Your task to perform on an android device: delete browsing data in the chrome app Image 0: 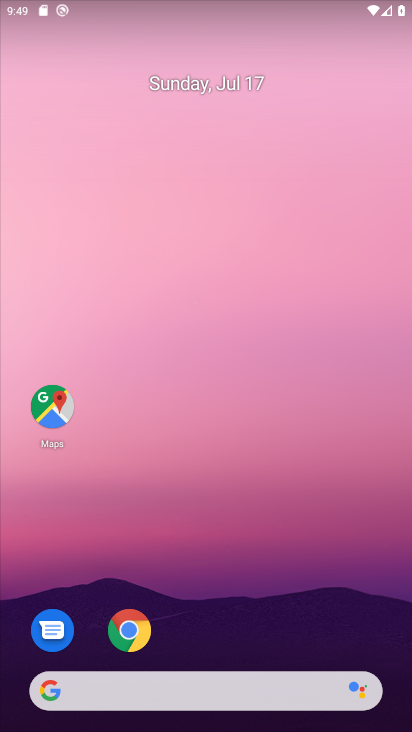
Step 0: click (238, 61)
Your task to perform on an android device: delete browsing data in the chrome app Image 1: 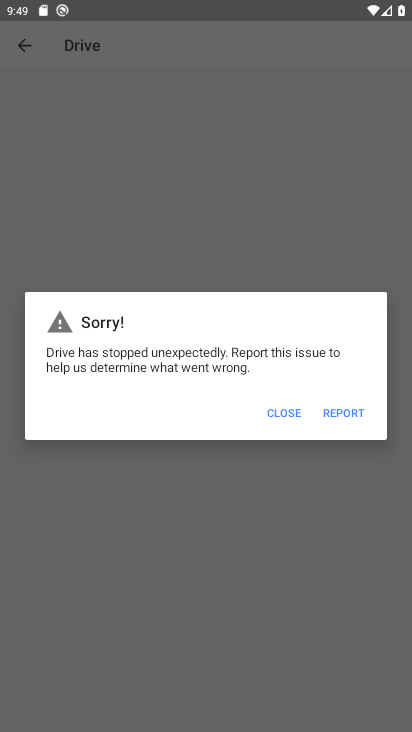
Step 1: press home button
Your task to perform on an android device: delete browsing data in the chrome app Image 2: 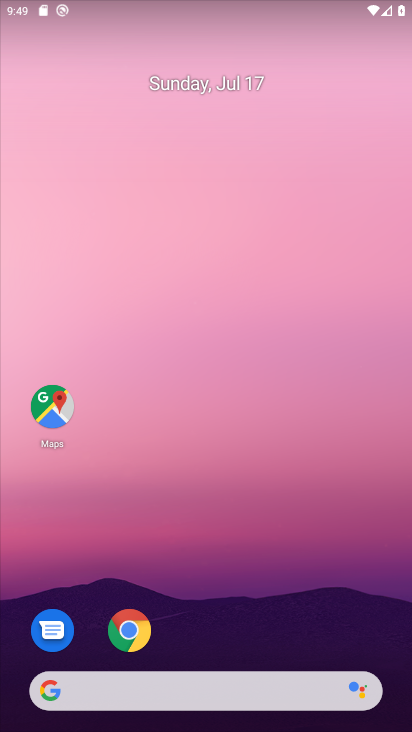
Step 2: click (121, 639)
Your task to perform on an android device: delete browsing data in the chrome app Image 3: 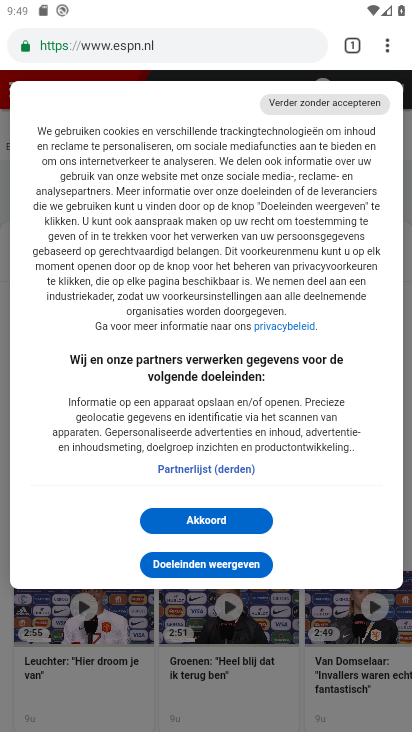
Step 3: click (385, 46)
Your task to perform on an android device: delete browsing data in the chrome app Image 4: 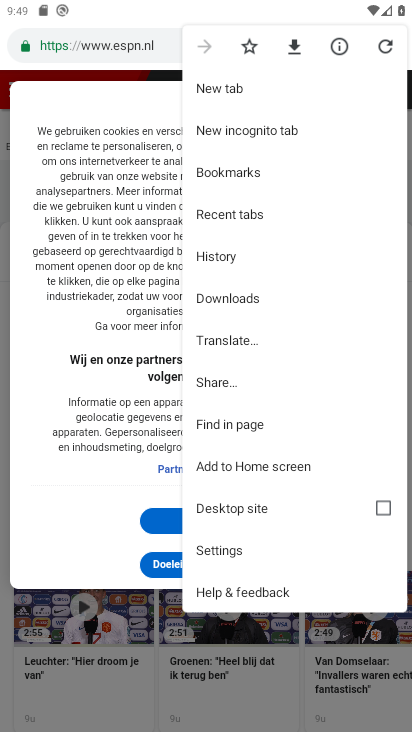
Step 4: click (248, 257)
Your task to perform on an android device: delete browsing data in the chrome app Image 5: 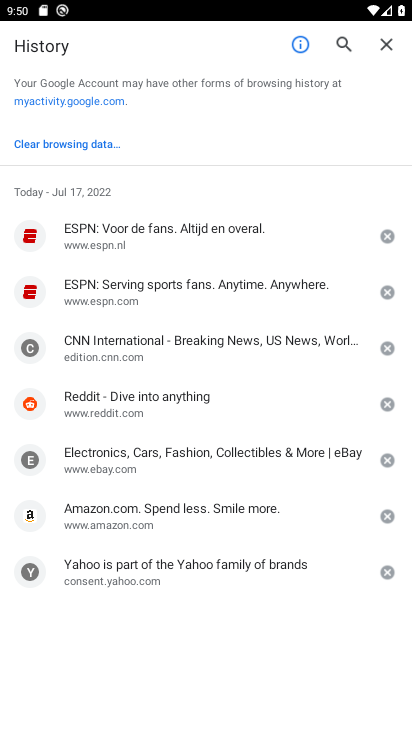
Step 5: click (83, 139)
Your task to perform on an android device: delete browsing data in the chrome app Image 6: 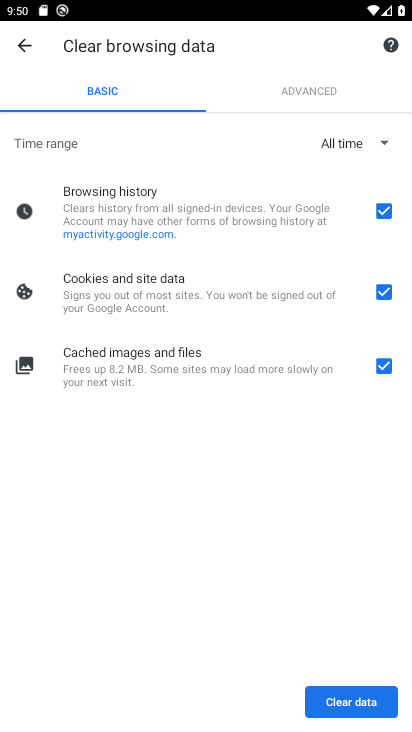
Step 6: click (371, 701)
Your task to perform on an android device: delete browsing data in the chrome app Image 7: 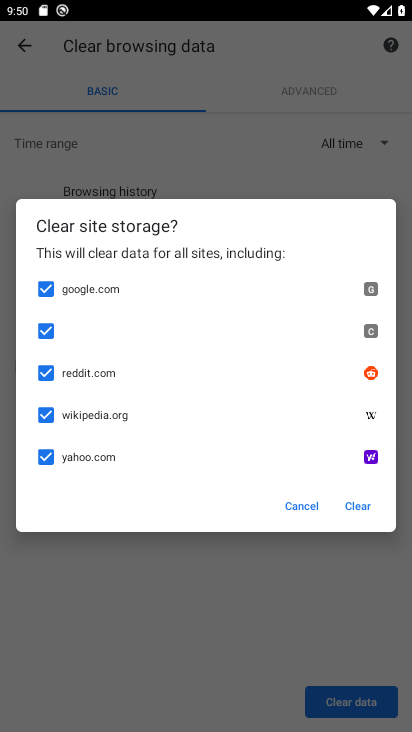
Step 7: click (360, 509)
Your task to perform on an android device: delete browsing data in the chrome app Image 8: 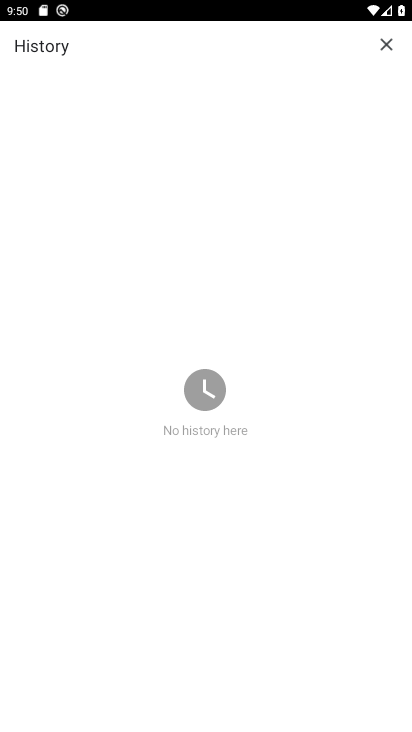
Step 8: task complete